Your task to perform on an android device: turn off wifi Image 0: 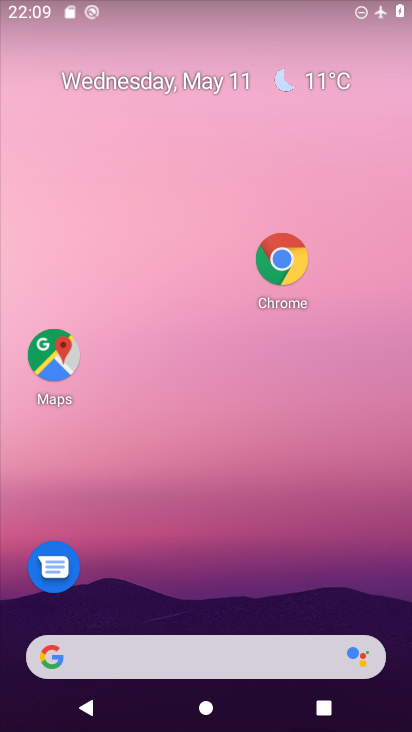
Step 0: drag from (149, 654) to (258, 172)
Your task to perform on an android device: turn off wifi Image 1: 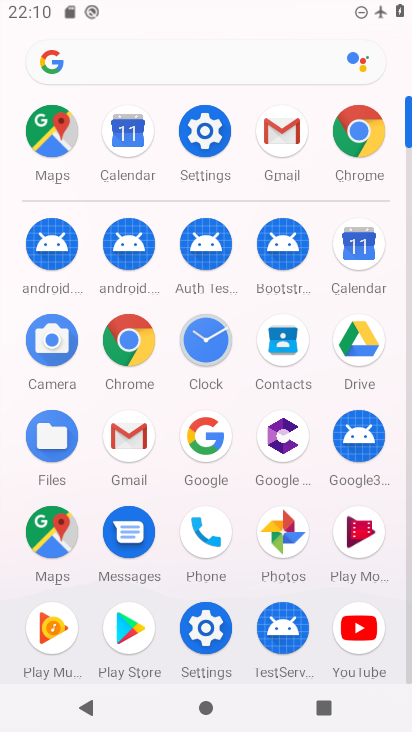
Step 1: click (209, 137)
Your task to perform on an android device: turn off wifi Image 2: 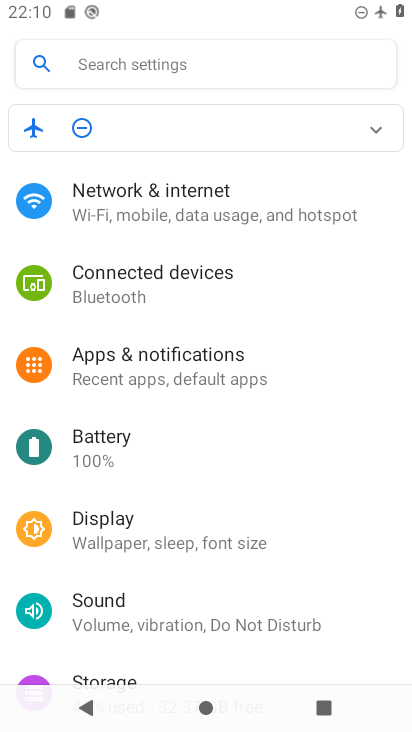
Step 2: click (201, 206)
Your task to perform on an android device: turn off wifi Image 3: 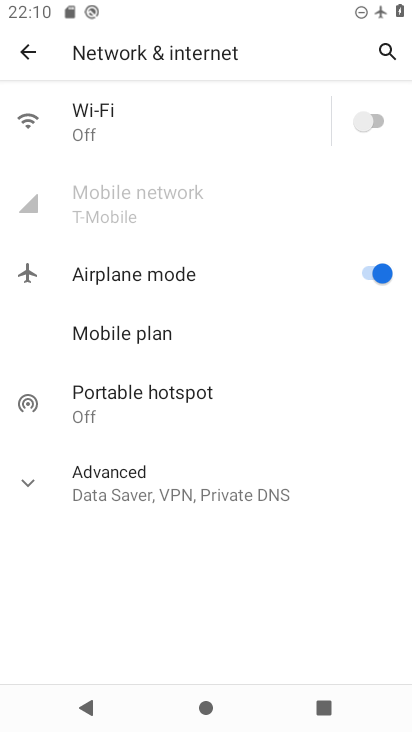
Step 3: task complete